Your task to perform on an android device: Open Amazon Image 0: 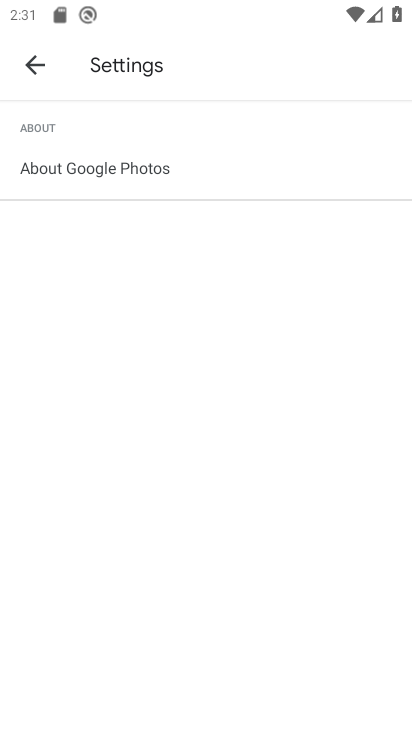
Step 0: press home button
Your task to perform on an android device: Open Amazon Image 1: 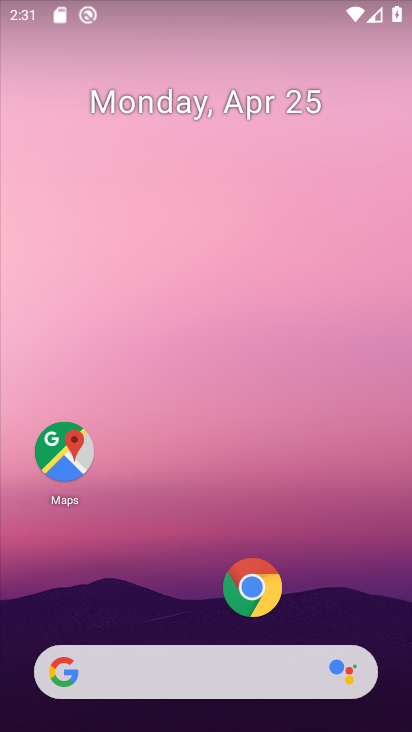
Step 1: drag from (205, 533) to (232, 39)
Your task to perform on an android device: Open Amazon Image 2: 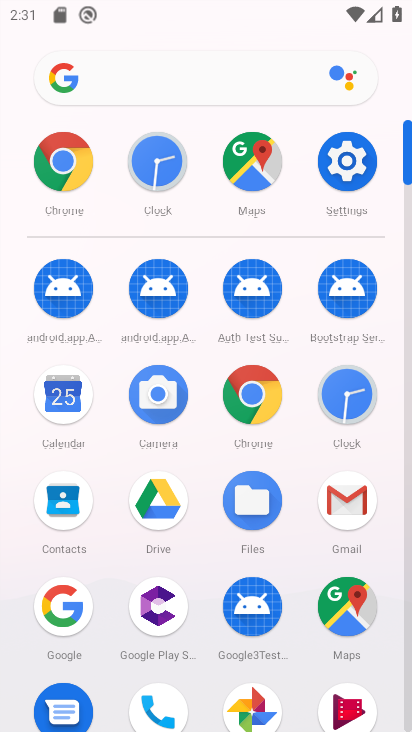
Step 2: click (249, 386)
Your task to perform on an android device: Open Amazon Image 3: 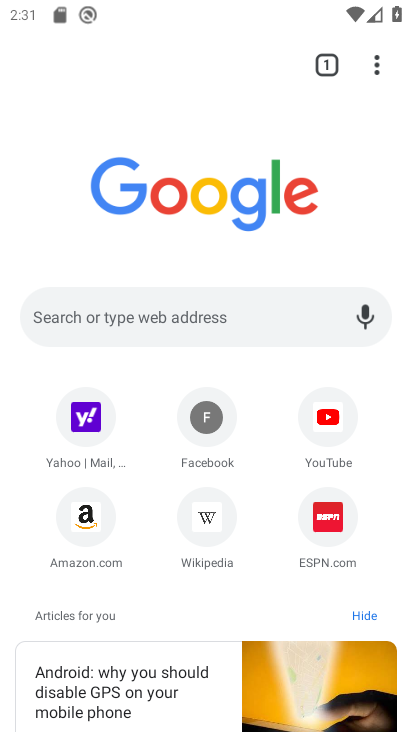
Step 3: click (379, 60)
Your task to perform on an android device: Open Amazon Image 4: 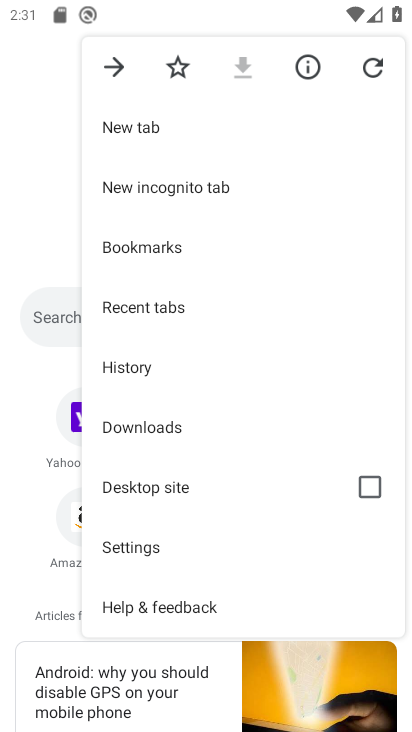
Step 4: click (35, 227)
Your task to perform on an android device: Open Amazon Image 5: 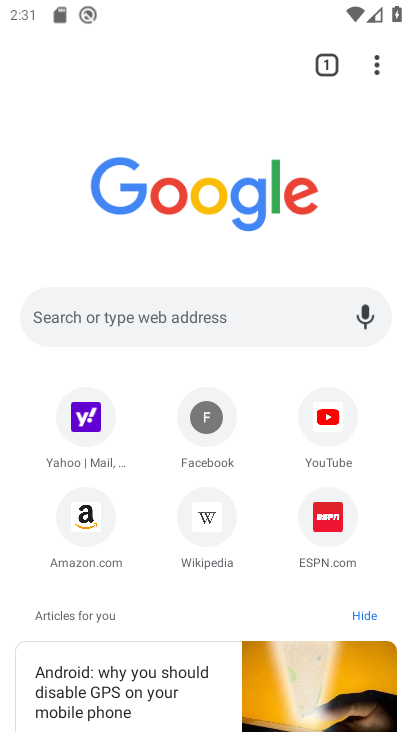
Step 5: click (79, 512)
Your task to perform on an android device: Open Amazon Image 6: 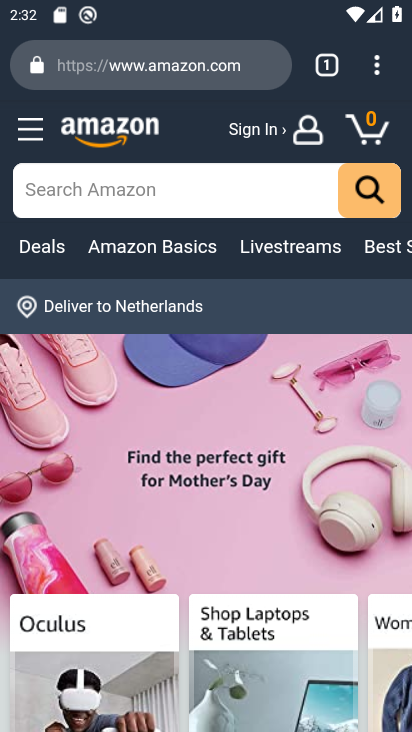
Step 6: task complete